Your task to perform on an android device: allow notifications from all sites in the chrome app Image 0: 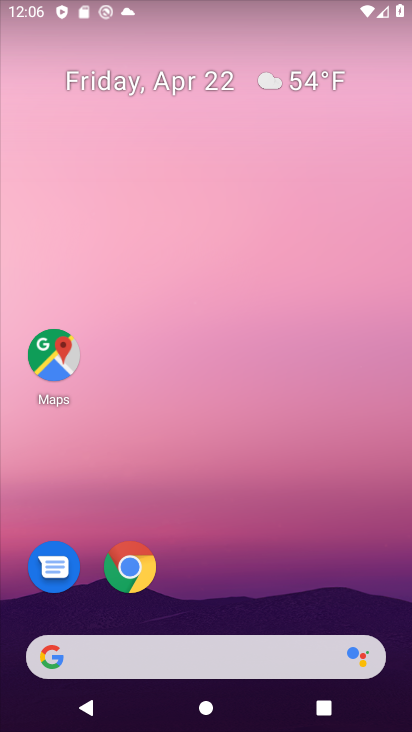
Step 0: drag from (262, 441) to (314, 81)
Your task to perform on an android device: allow notifications from all sites in the chrome app Image 1: 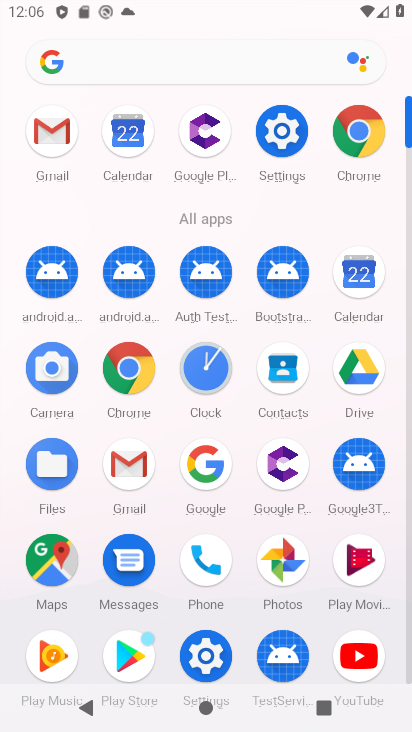
Step 1: click (370, 162)
Your task to perform on an android device: allow notifications from all sites in the chrome app Image 2: 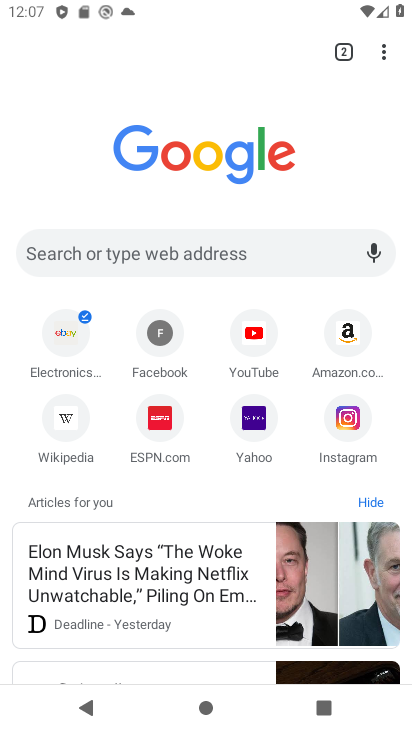
Step 2: click (384, 60)
Your task to perform on an android device: allow notifications from all sites in the chrome app Image 3: 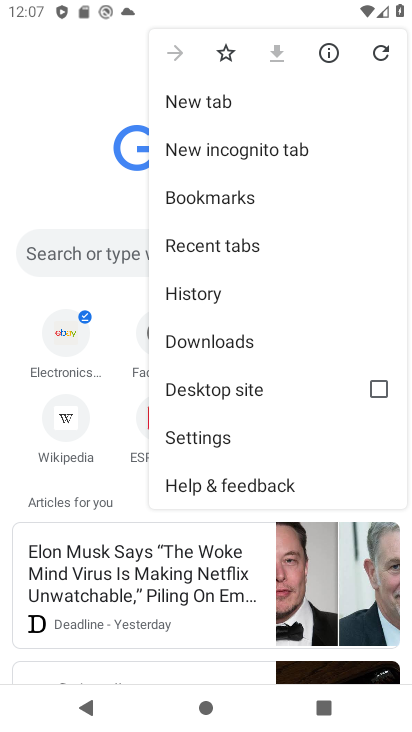
Step 3: click (227, 432)
Your task to perform on an android device: allow notifications from all sites in the chrome app Image 4: 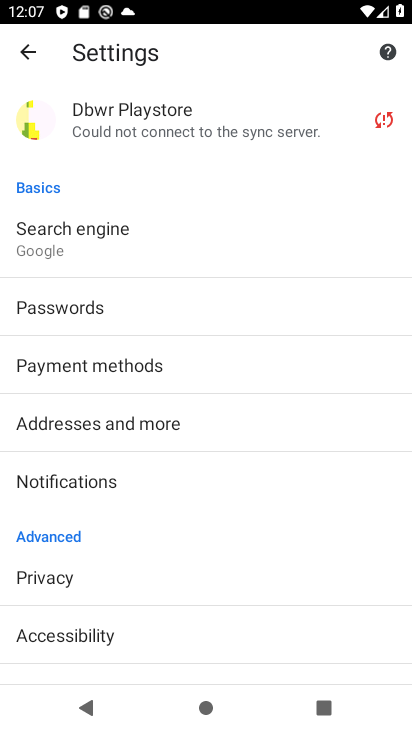
Step 4: click (129, 497)
Your task to perform on an android device: allow notifications from all sites in the chrome app Image 5: 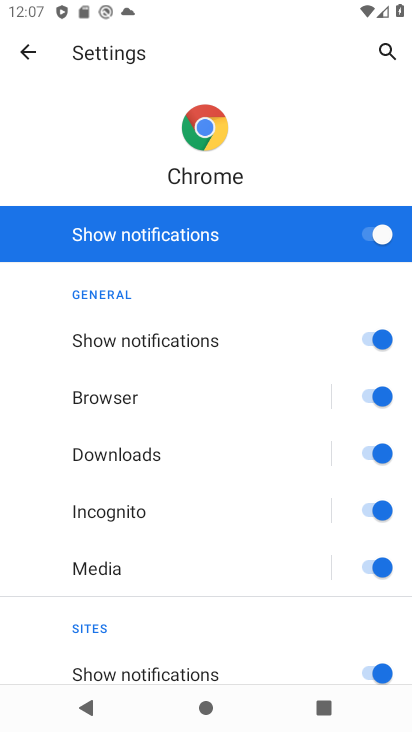
Step 5: task complete